Your task to perform on an android device: choose inbox layout in the gmail app Image 0: 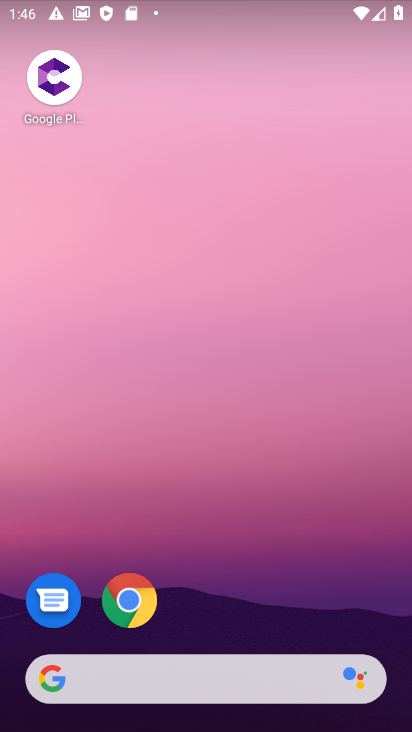
Step 0: drag from (199, 655) to (331, 59)
Your task to perform on an android device: choose inbox layout in the gmail app Image 1: 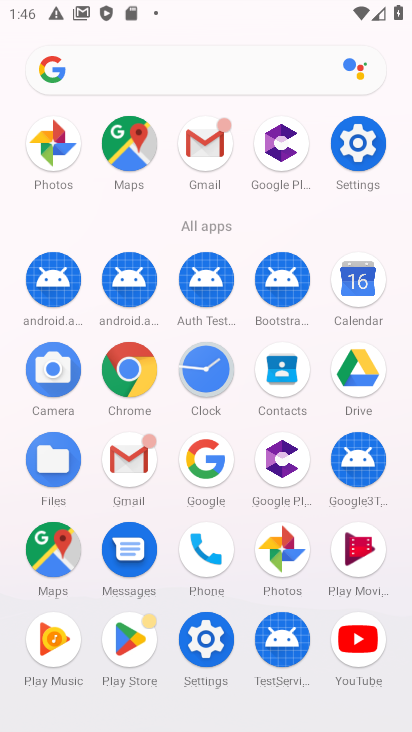
Step 1: click (134, 469)
Your task to perform on an android device: choose inbox layout in the gmail app Image 2: 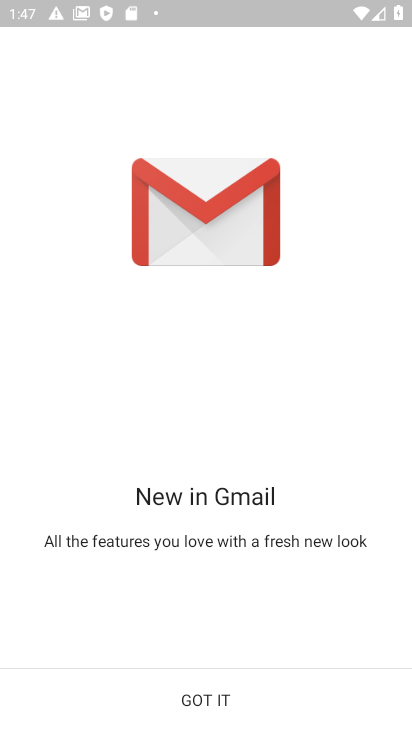
Step 2: click (193, 691)
Your task to perform on an android device: choose inbox layout in the gmail app Image 3: 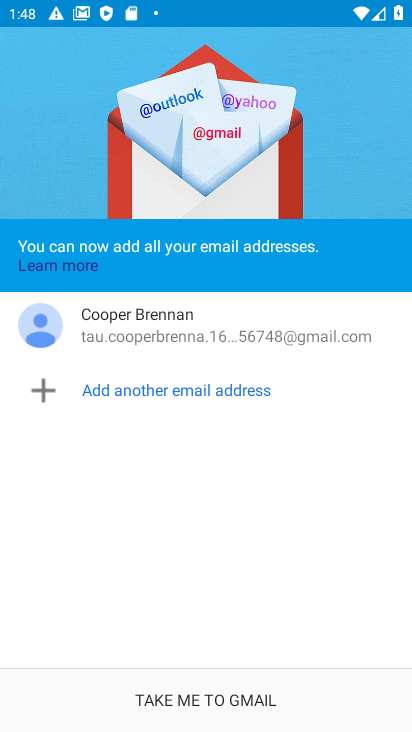
Step 3: click (243, 687)
Your task to perform on an android device: choose inbox layout in the gmail app Image 4: 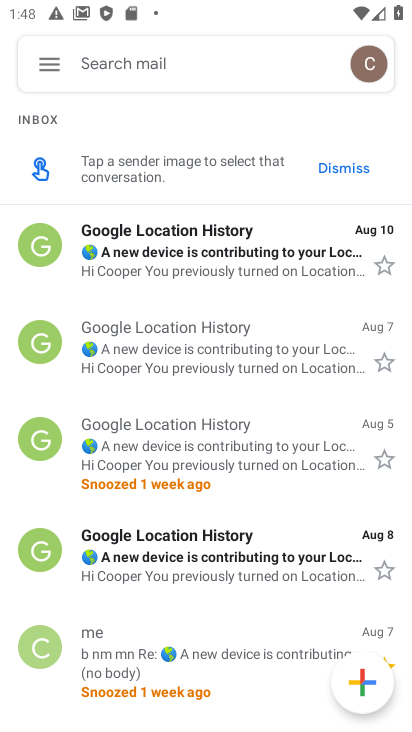
Step 4: click (52, 71)
Your task to perform on an android device: choose inbox layout in the gmail app Image 5: 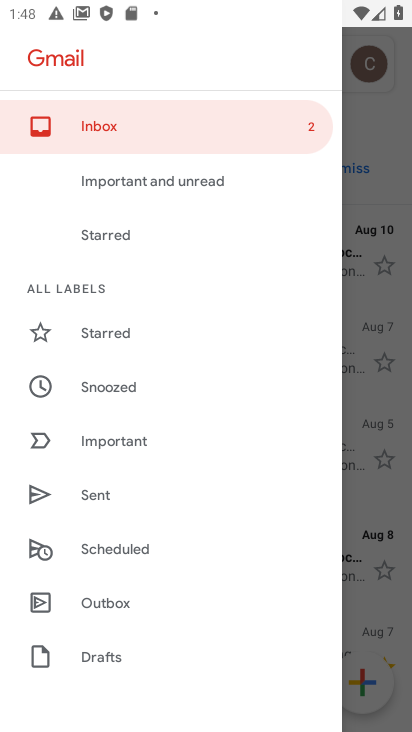
Step 5: drag from (127, 592) to (194, 73)
Your task to perform on an android device: choose inbox layout in the gmail app Image 6: 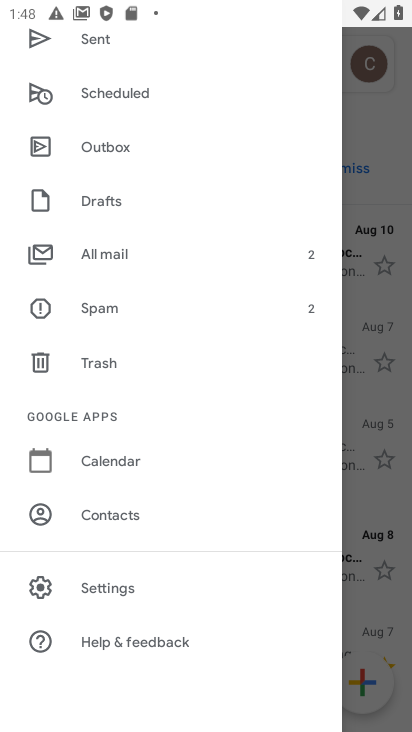
Step 6: click (98, 593)
Your task to perform on an android device: choose inbox layout in the gmail app Image 7: 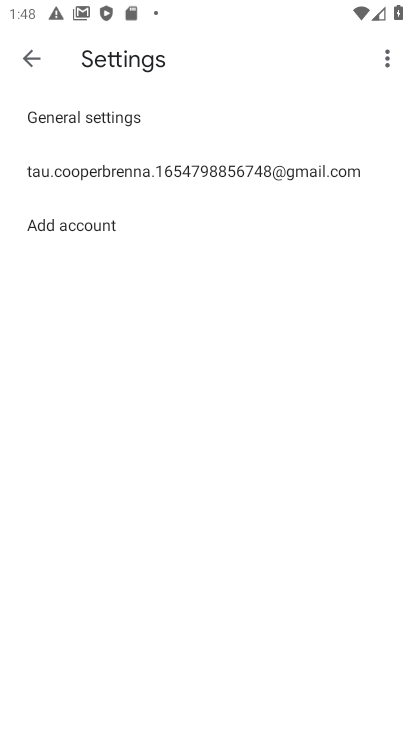
Step 7: click (153, 172)
Your task to perform on an android device: choose inbox layout in the gmail app Image 8: 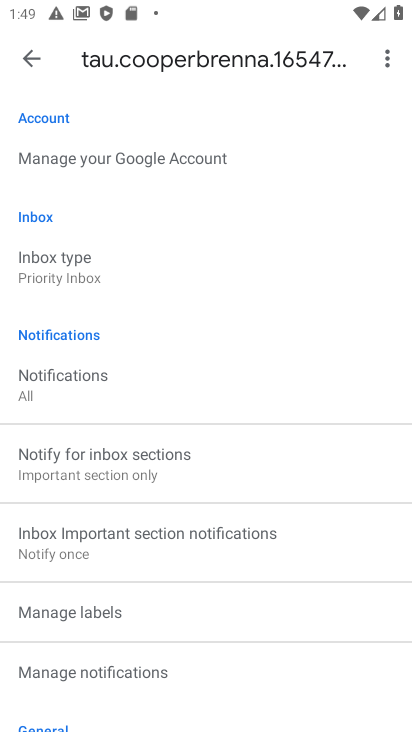
Step 8: click (96, 294)
Your task to perform on an android device: choose inbox layout in the gmail app Image 9: 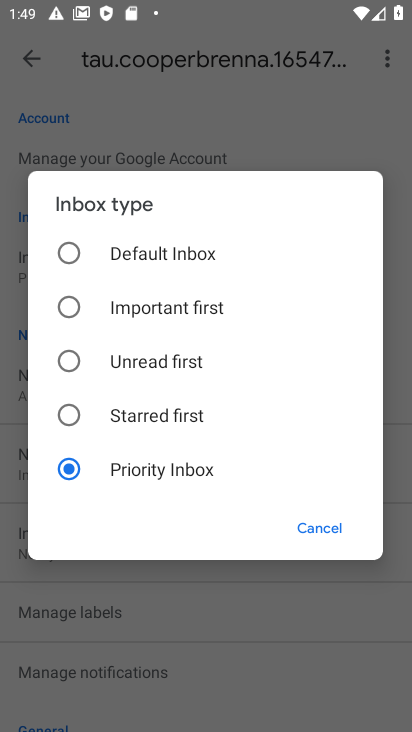
Step 9: click (138, 269)
Your task to perform on an android device: choose inbox layout in the gmail app Image 10: 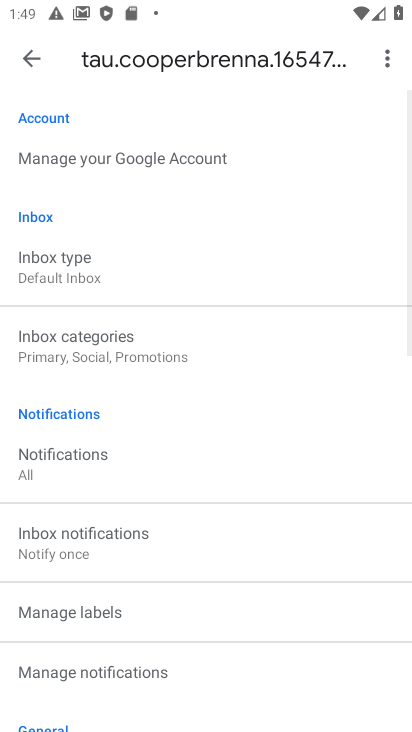
Step 10: task complete